Your task to perform on an android device: turn off javascript in the chrome app Image 0: 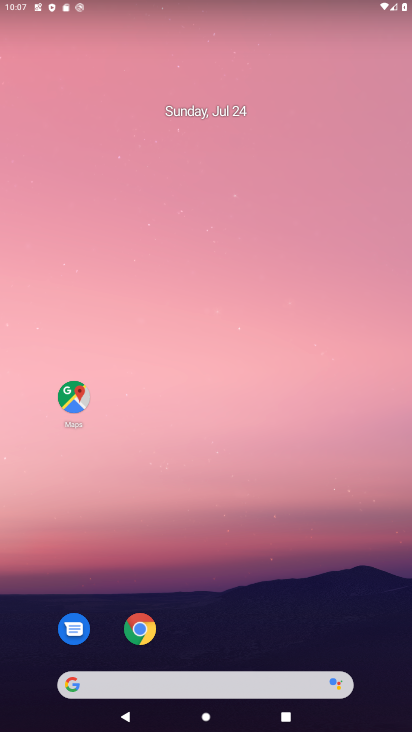
Step 0: drag from (199, 620) to (221, 54)
Your task to perform on an android device: turn off javascript in the chrome app Image 1: 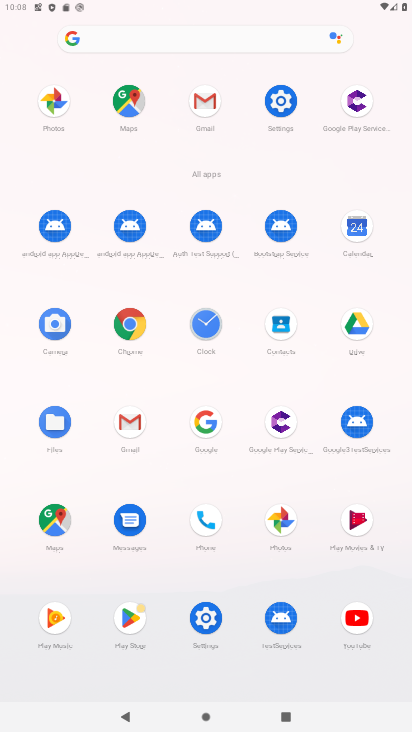
Step 1: click (127, 322)
Your task to perform on an android device: turn off javascript in the chrome app Image 2: 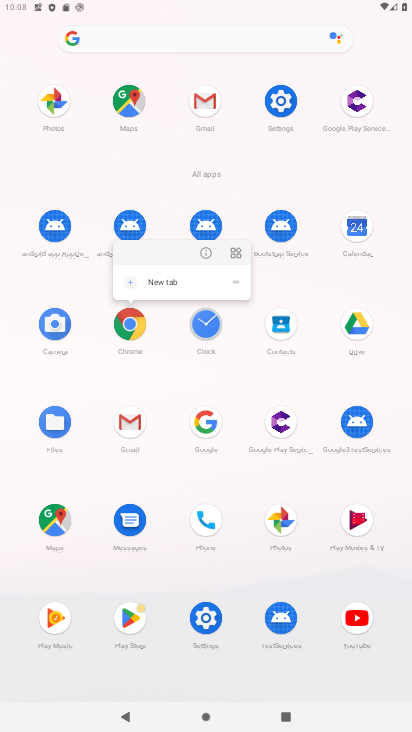
Step 2: click (201, 248)
Your task to perform on an android device: turn off javascript in the chrome app Image 3: 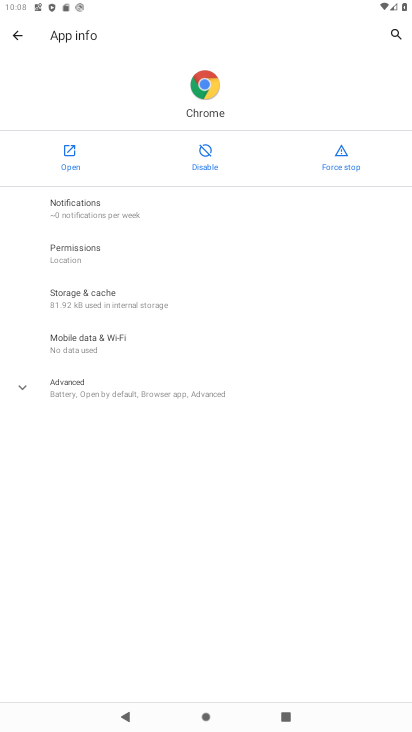
Step 3: click (65, 155)
Your task to perform on an android device: turn off javascript in the chrome app Image 4: 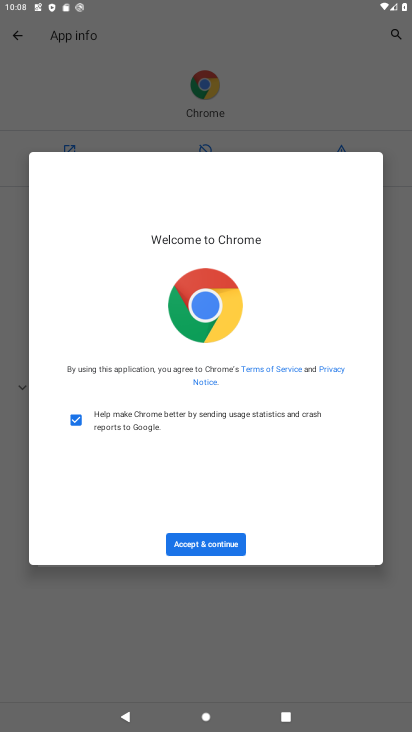
Step 4: click (191, 541)
Your task to perform on an android device: turn off javascript in the chrome app Image 5: 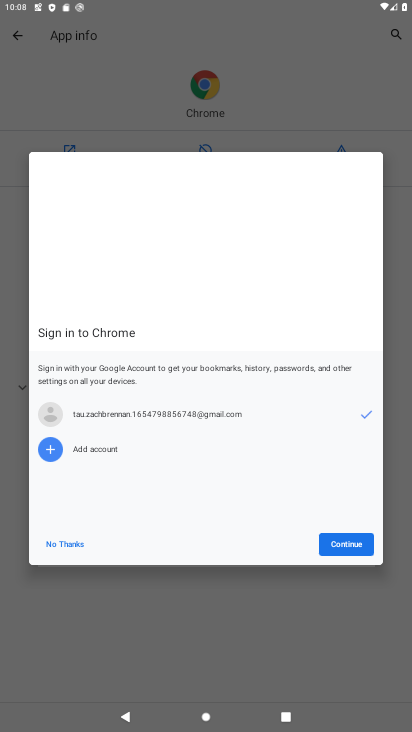
Step 5: click (350, 538)
Your task to perform on an android device: turn off javascript in the chrome app Image 6: 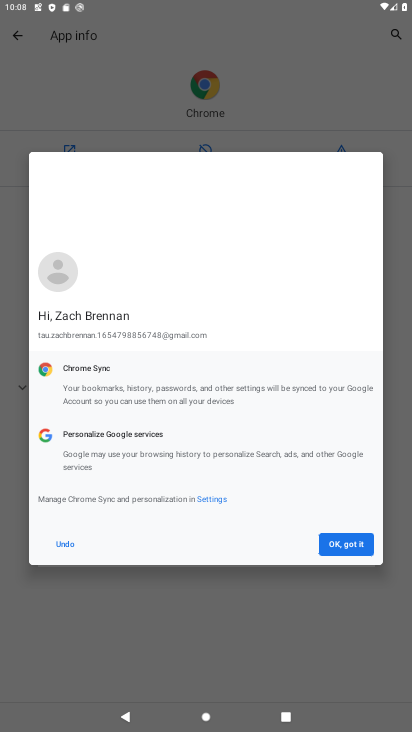
Step 6: click (339, 541)
Your task to perform on an android device: turn off javascript in the chrome app Image 7: 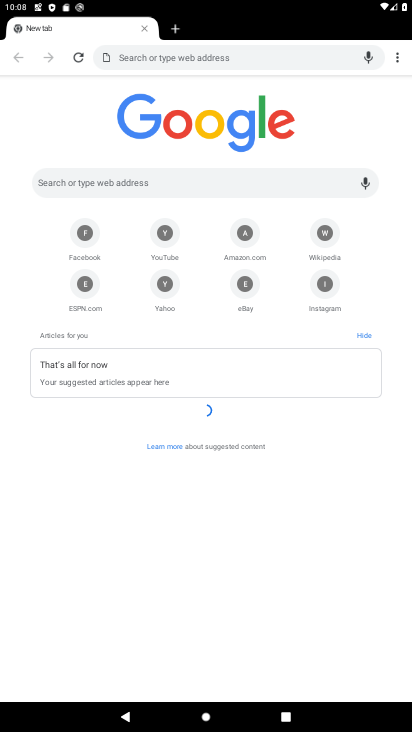
Step 7: drag from (397, 61) to (318, 259)
Your task to perform on an android device: turn off javascript in the chrome app Image 8: 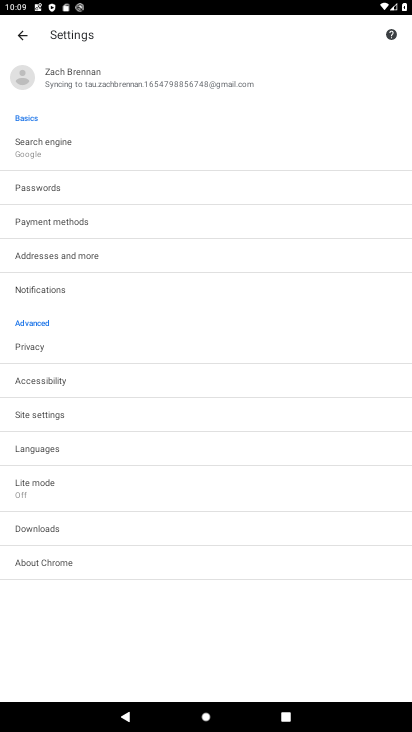
Step 8: click (80, 416)
Your task to perform on an android device: turn off javascript in the chrome app Image 9: 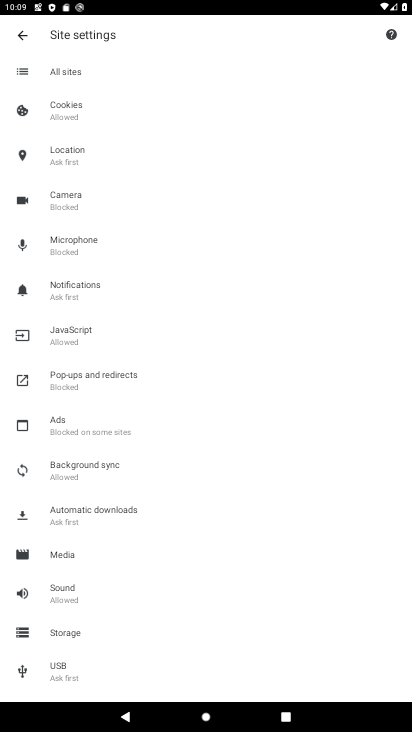
Step 9: click (114, 330)
Your task to perform on an android device: turn off javascript in the chrome app Image 10: 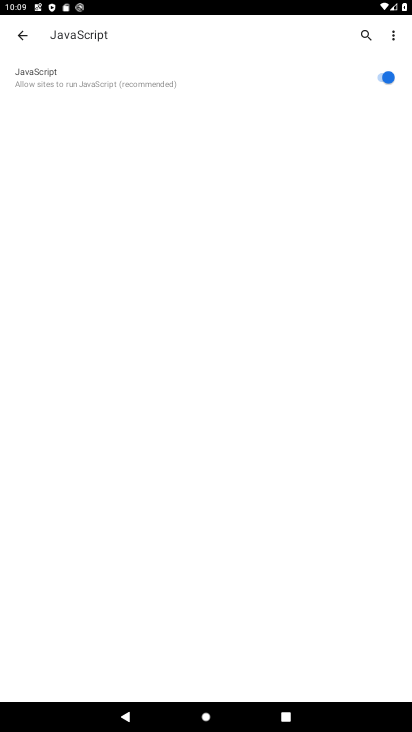
Step 10: click (379, 78)
Your task to perform on an android device: turn off javascript in the chrome app Image 11: 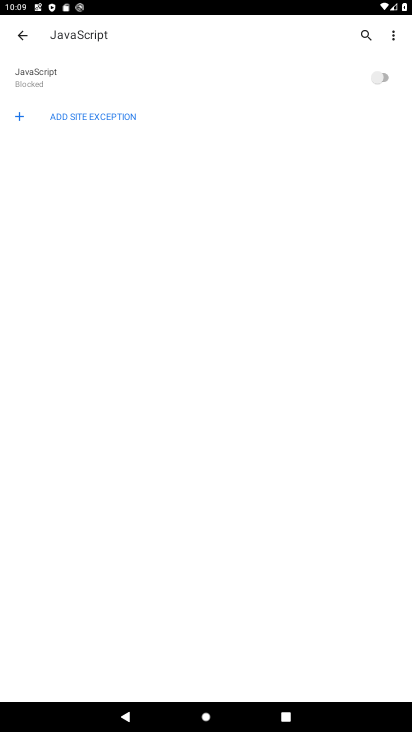
Step 11: task complete